Your task to perform on an android device: uninstall "DoorDash - Food Delivery" Image 0: 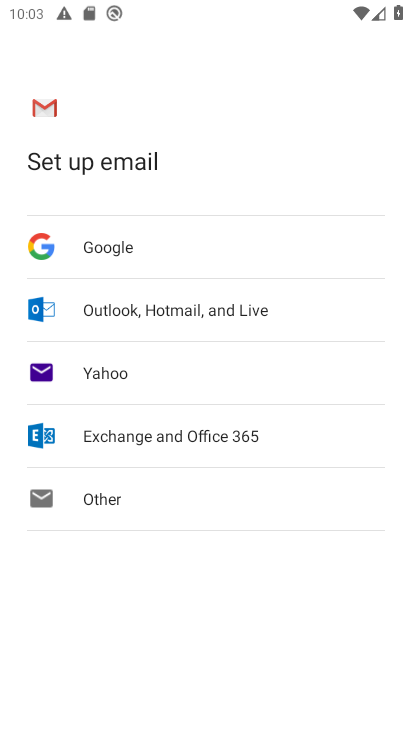
Step 0: press home button
Your task to perform on an android device: uninstall "DoorDash - Food Delivery" Image 1: 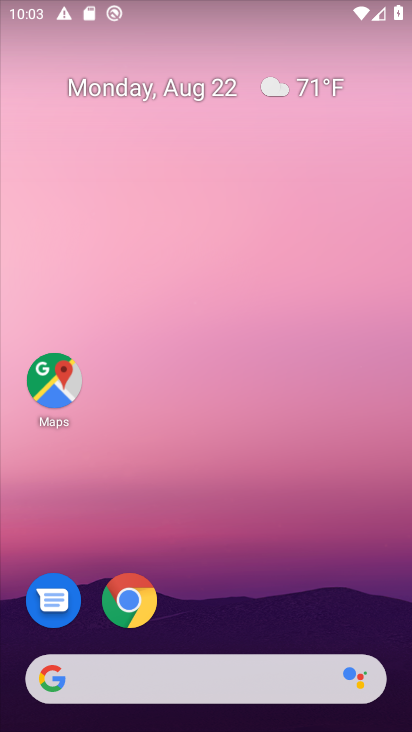
Step 1: drag from (227, 580) to (250, 148)
Your task to perform on an android device: uninstall "DoorDash - Food Delivery" Image 2: 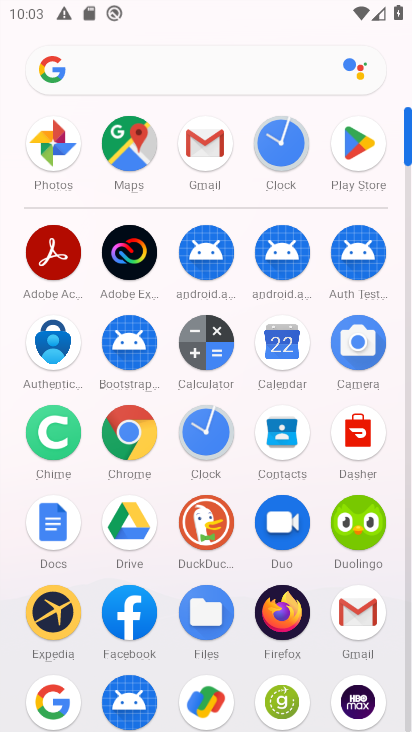
Step 2: click (349, 140)
Your task to perform on an android device: uninstall "DoorDash - Food Delivery" Image 3: 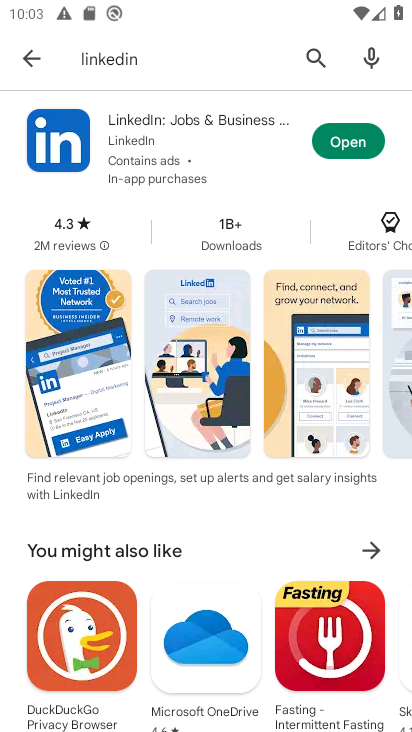
Step 3: click (315, 57)
Your task to perform on an android device: uninstall "DoorDash - Food Delivery" Image 4: 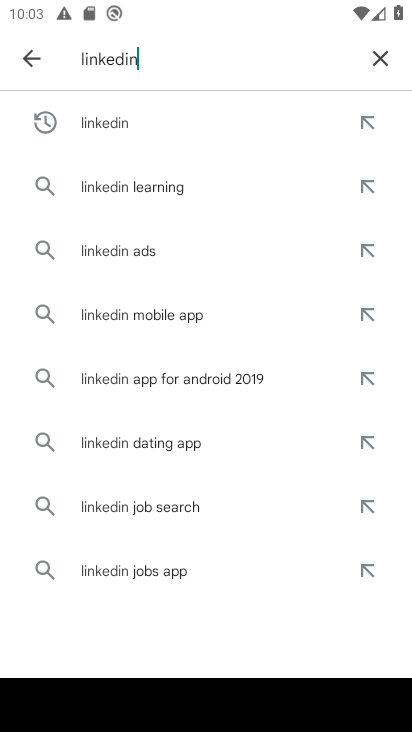
Step 4: click (377, 50)
Your task to perform on an android device: uninstall "DoorDash - Food Delivery" Image 5: 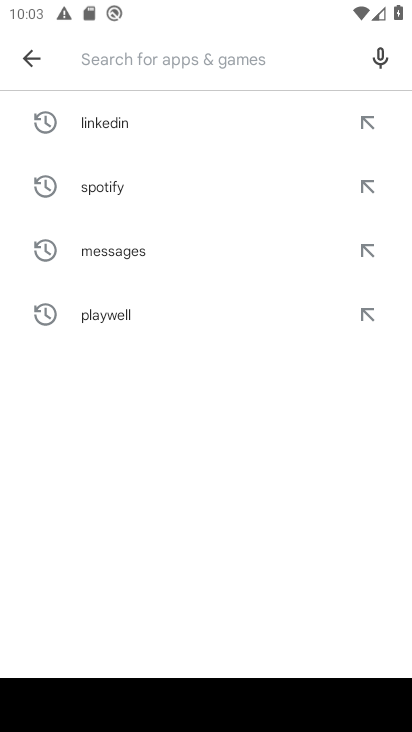
Step 5: type "DoorDash - Food Delivery"
Your task to perform on an android device: uninstall "DoorDash - Food Delivery" Image 6: 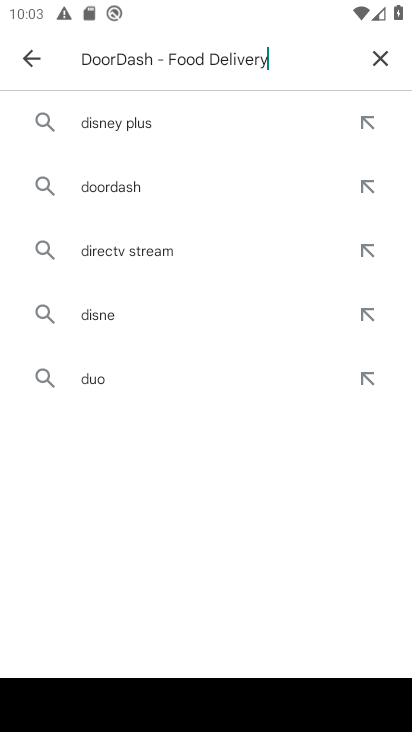
Step 6: type ""
Your task to perform on an android device: uninstall "DoorDash - Food Delivery" Image 7: 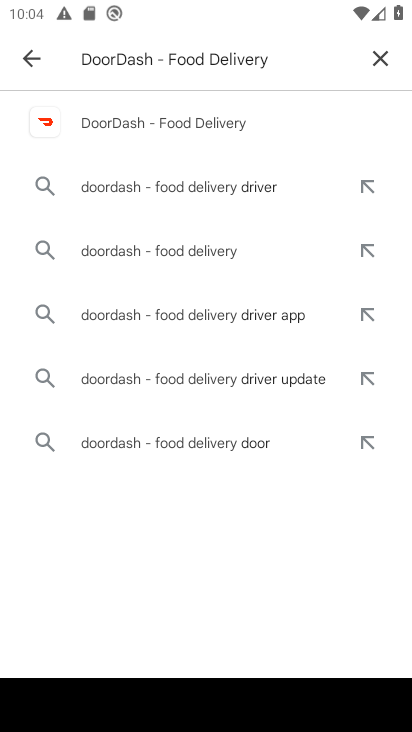
Step 7: click (127, 128)
Your task to perform on an android device: uninstall "DoorDash - Food Delivery" Image 8: 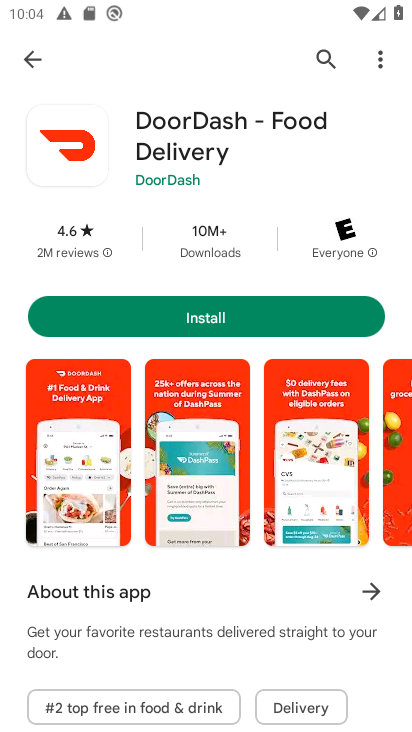
Step 8: task complete